Your task to perform on an android device: Open Google Image 0: 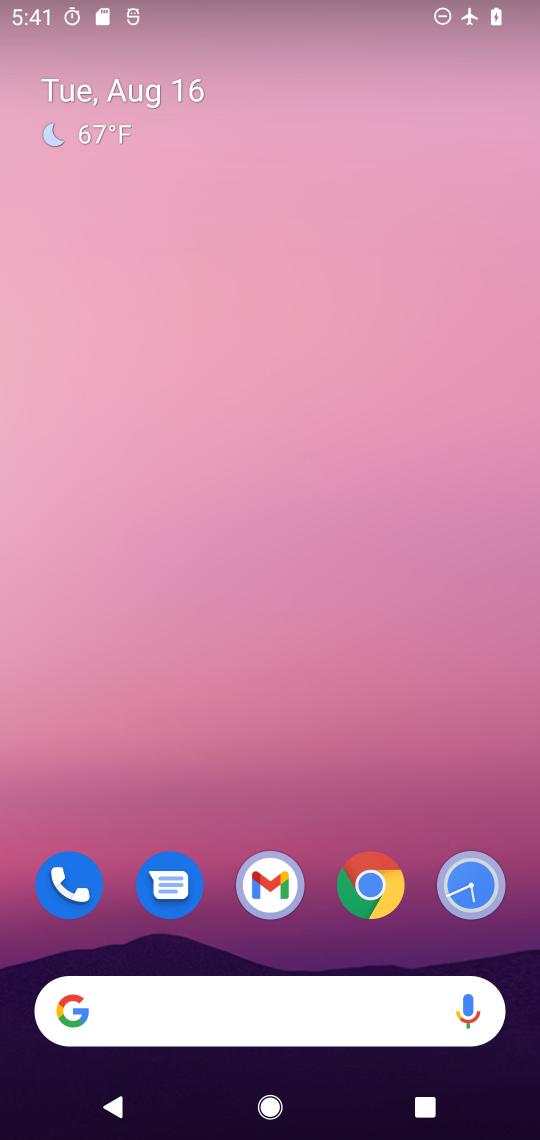
Step 0: drag from (252, 929) to (294, 476)
Your task to perform on an android device: Open Google Image 1: 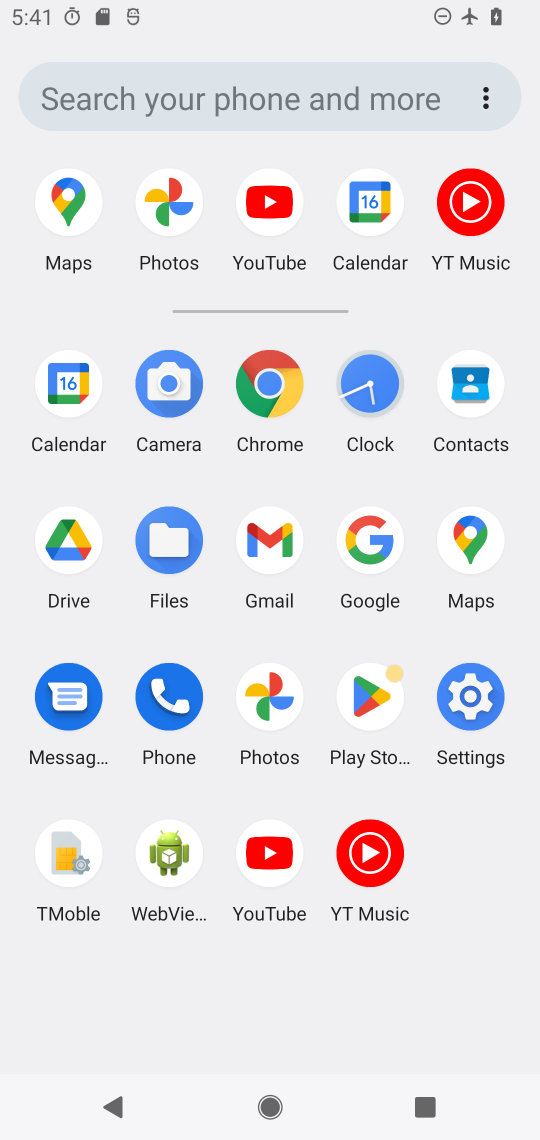
Step 1: click (375, 538)
Your task to perform on an android device: Open Google Image 2: 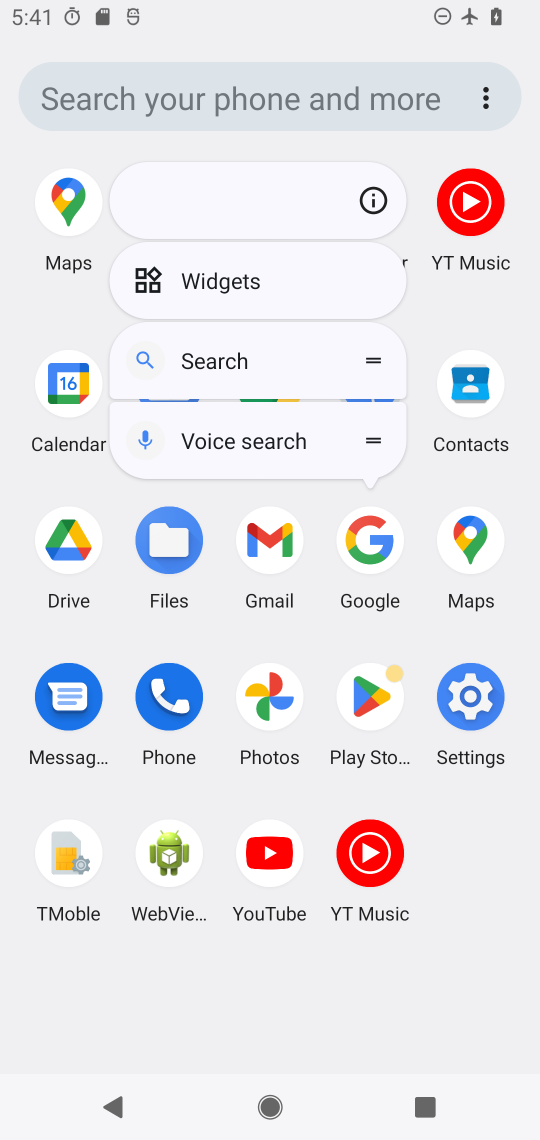
Step 2: click (367, 538)
Your task to perform on an android device: Open Google Image 3: 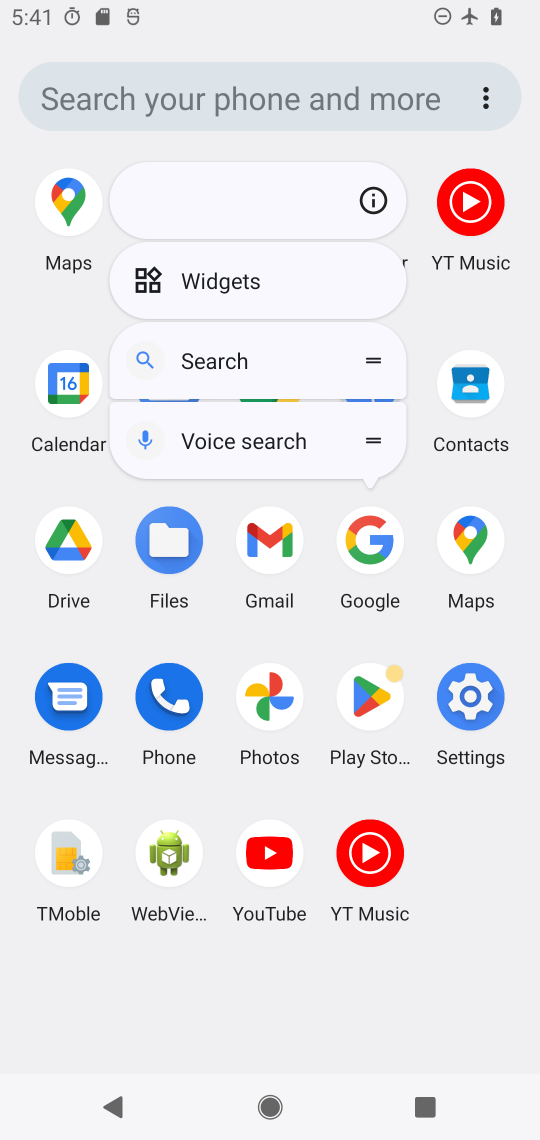
Step 3: click (364, 536)
Your task to perform on an android device: Open Google Image 4: 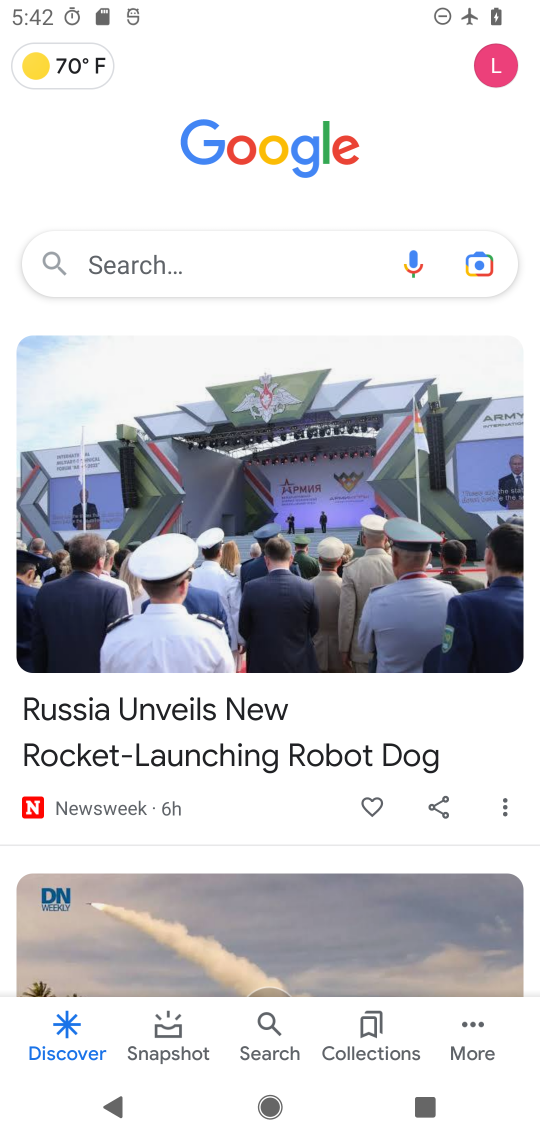
Step 4: task complete